Your task to perform on an android device: show emergency info Image 0: 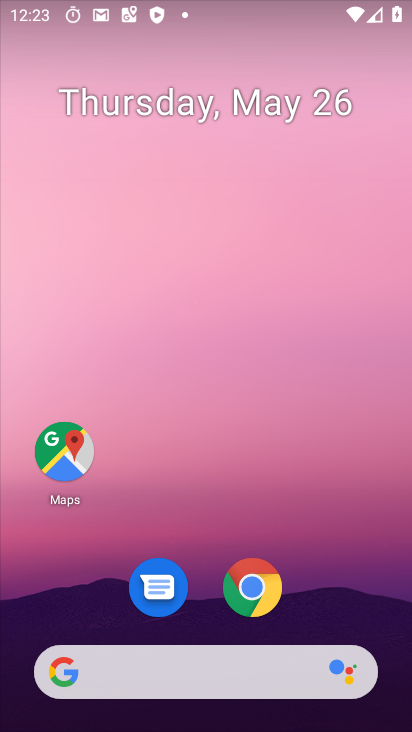
Step 0: press home button
Your task to perform on an android device: show emergency info Image 1: 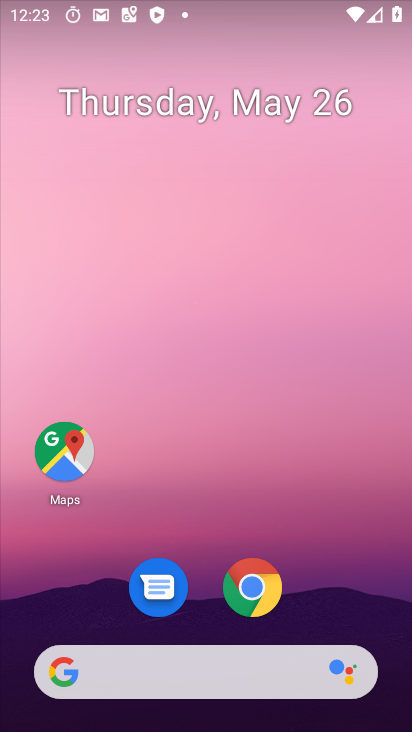
Step 1: drag from (275, 681) to (180, 33)
Your task to perform on an android device: show emergency info Image 2: 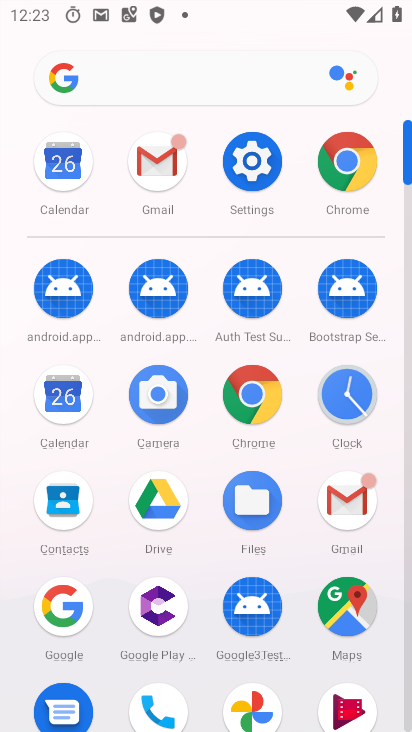
Step 2: click (238, 163)
Your task to perform on an android device: show emergency info Image 3: 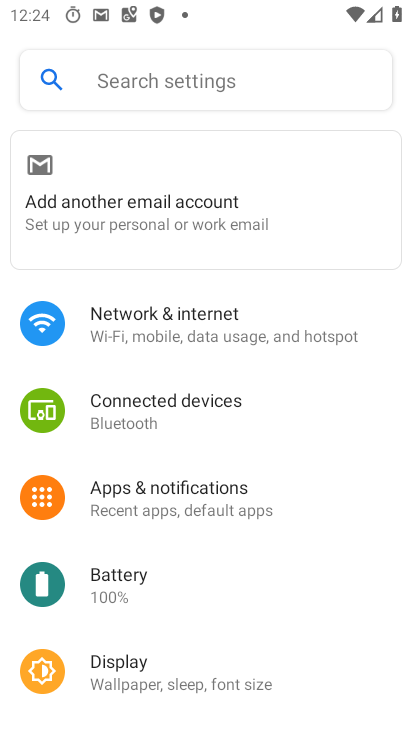
Step 3: click (179, 80)
Your task to perform on an android device: show emergency info Image 4: 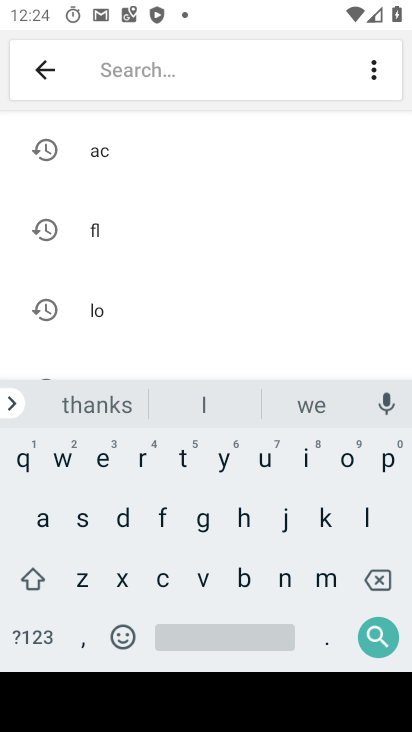
Step 4: click (96, 459)
Your task to perform on an android device: show emergency info Image 5: 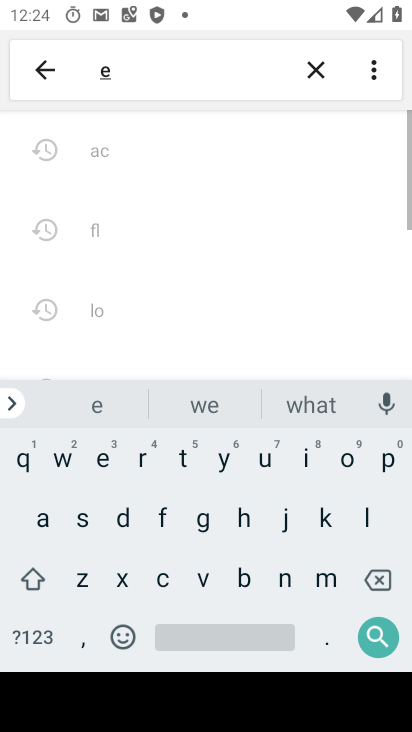
Step 5: click (335, 579)
Your task to perform on an android device: show emergency info Image 6: 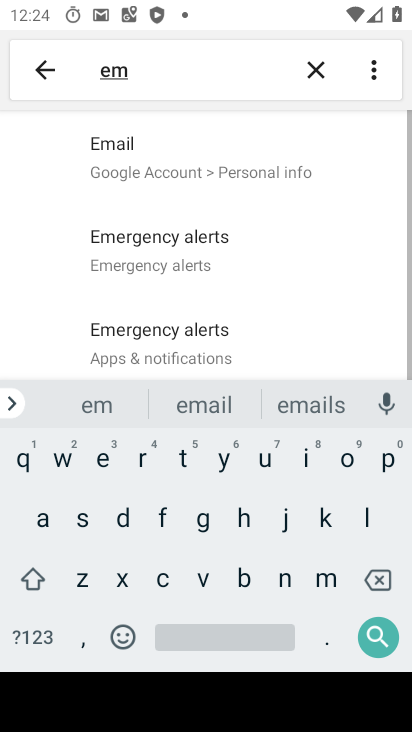
Step 6: click (105, 459)
Your task to perform on an android device: show emergency info Image 7: 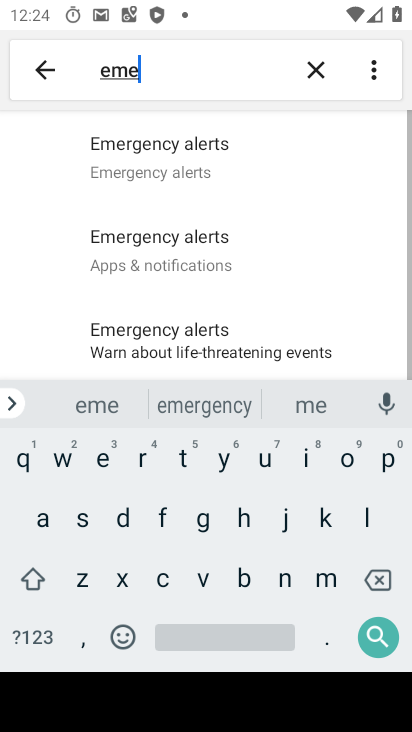
Step 7: click (225, 409)
Your task to perform on an android device: show emergency info Image 8: 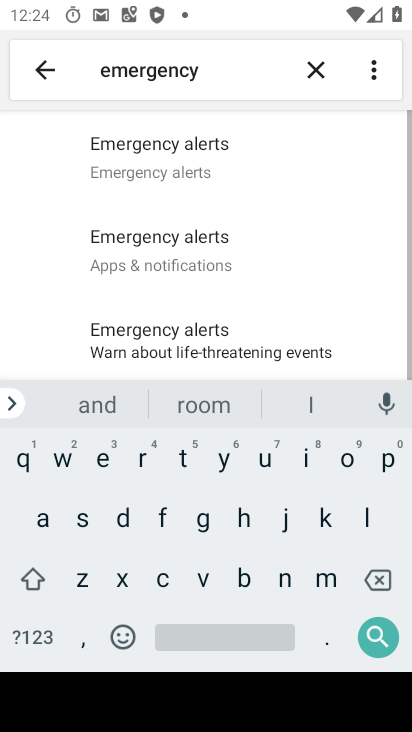
Step 8: click (303, 465)
Your task to perform on an android device: show emergency info Image 9: 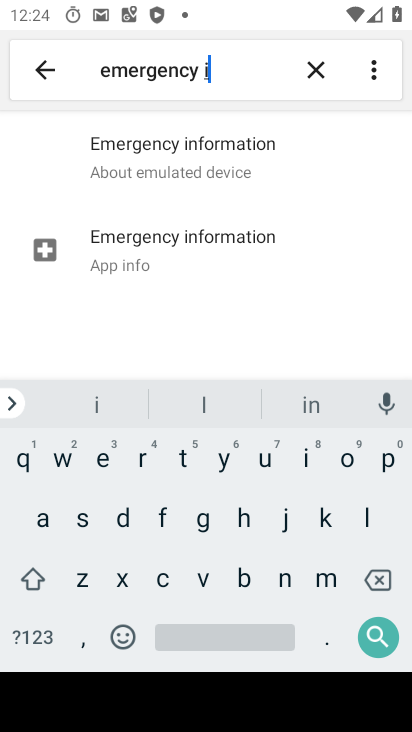
Step 9: click (211, 166)
Your task to perform on an android device: show emergency info Image 10: 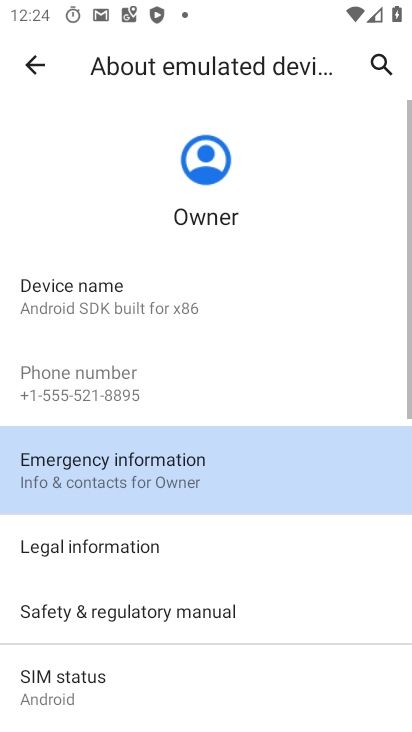
Step 10: click (137, 443)
Your task to perform on an android device: show emergency info Image 11: 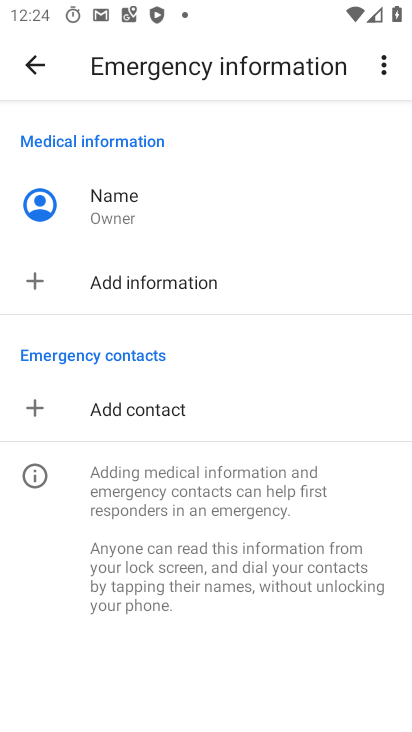
Step 11: task complete